Your task to perform on an android device: Go to display settings Image 0: 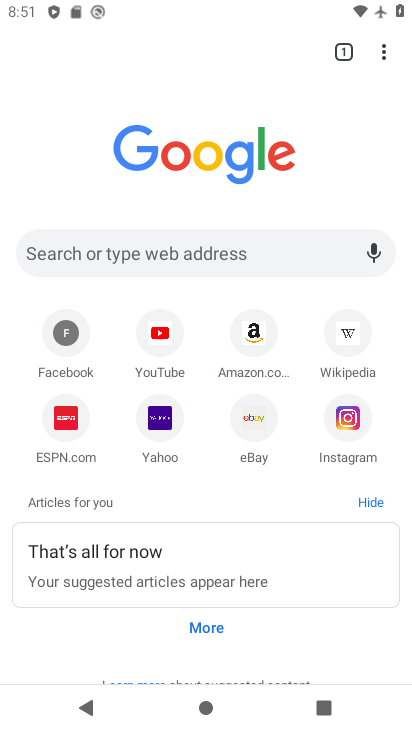
Step 0: press home button
Your task to perform on an android device: Go to display settings Image 1: 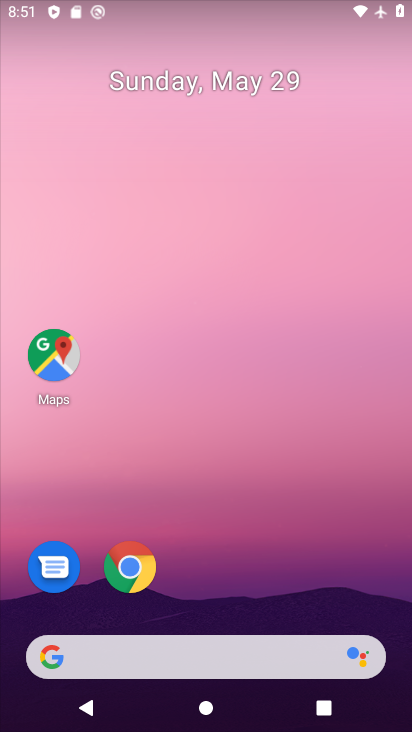
Step 1: drag from (383, 583) to (323, 80)
Your task to perform on an android device: Go to display settings Image 2: 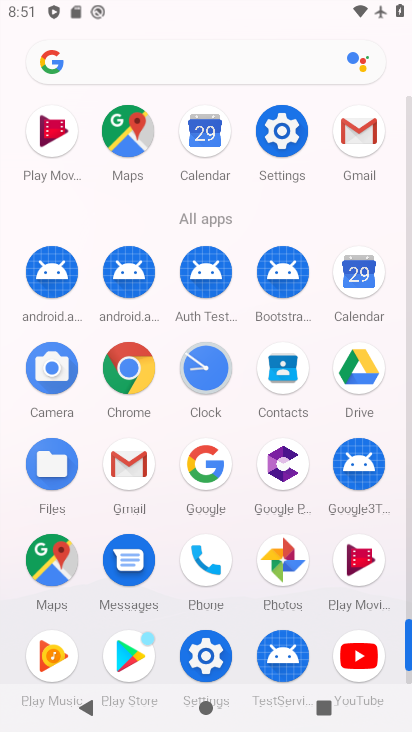
Step 2: click (207, 657)
Your task to perform on an android device: Go to display settings Image 3: 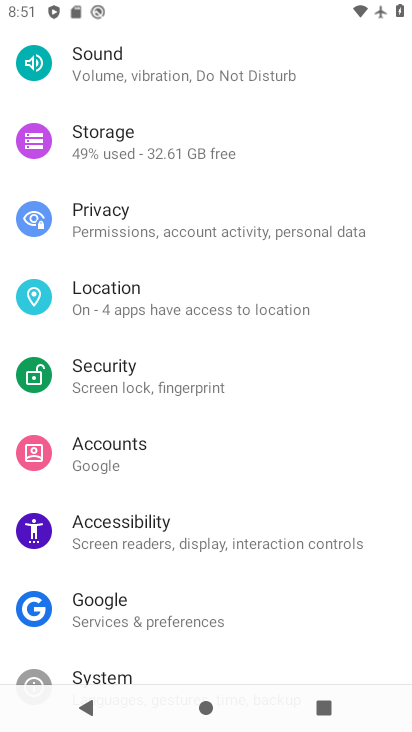
Step 3: drag from (320, 304) to (285, 577)
Your task to perform on an android device: Go to display settings Image 4: 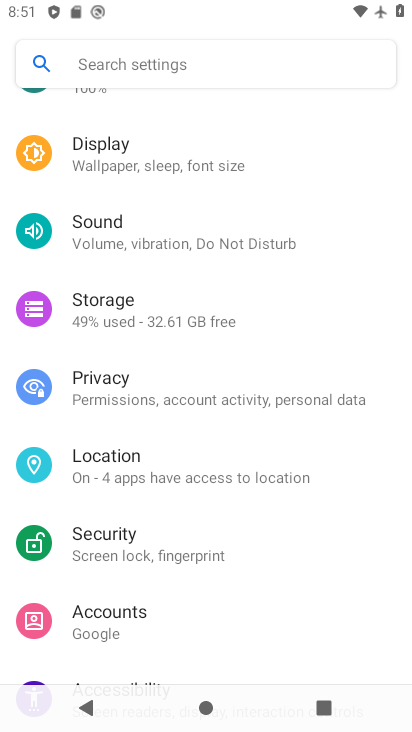
Step 4: click (108, 140)
Your task to perform on an android device: Go to display settings Image 5: 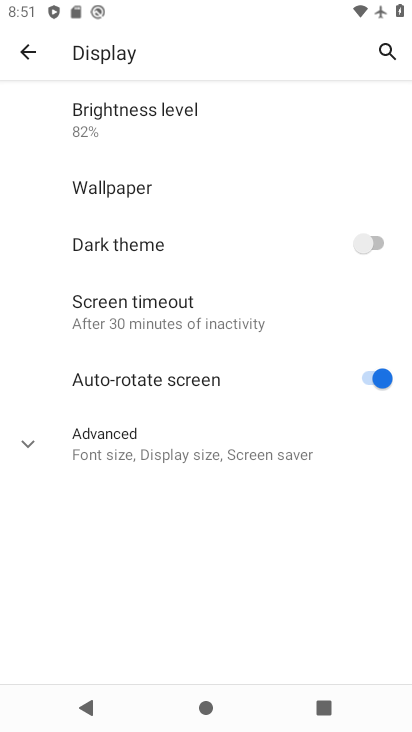
Step 5: click (25, 442)
Your task to perform on an android device: Go to display settings Image 6: 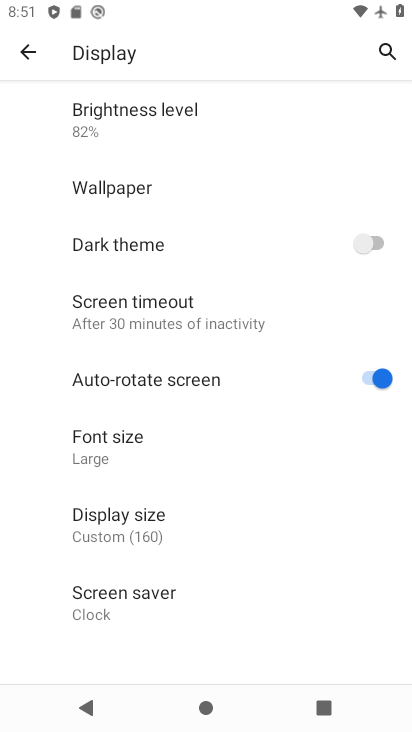
Step 6: task complete